Your task to perform on an android device: turn off notifications settings in the gmail app Image 0: 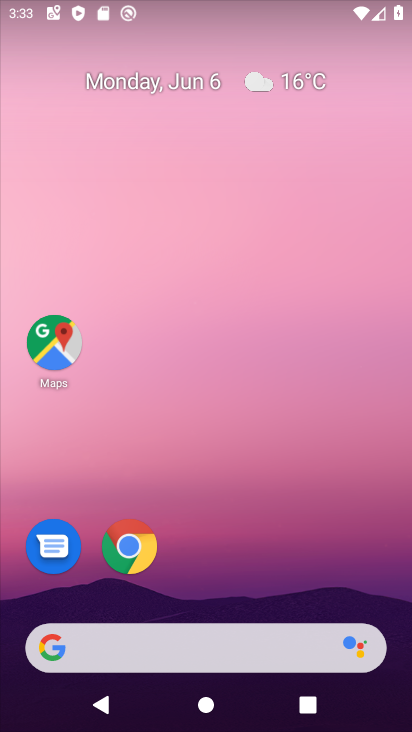
Step 0: drag from (253, 566) to (319, 170)
Your task to perform on an android device: turn off notifications settings in the gmail app Image 1: 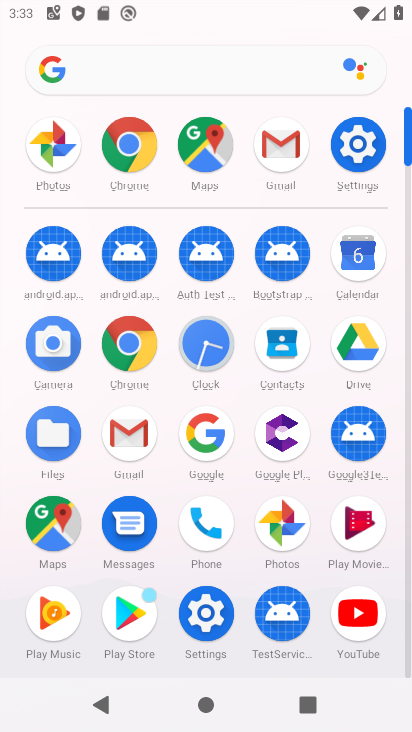
Step 1: click (284, 155)
Your task to perform on an android device: turn off notifications settings in the gmail app Image 2: 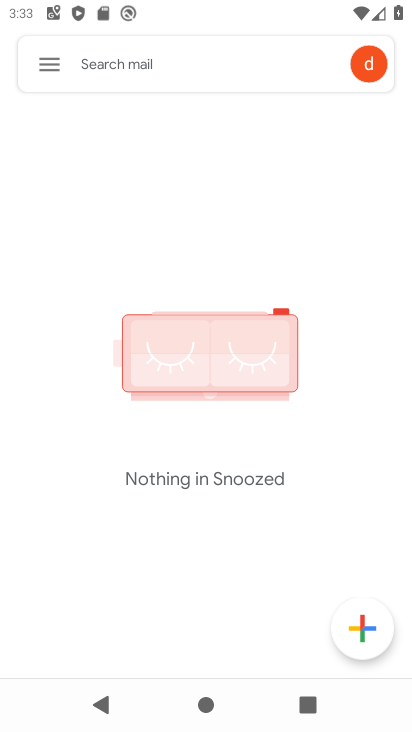
Step 2: click (43, 61)
Your task to perform on an android device: turn off notifications settings in the gmail app Image 3: 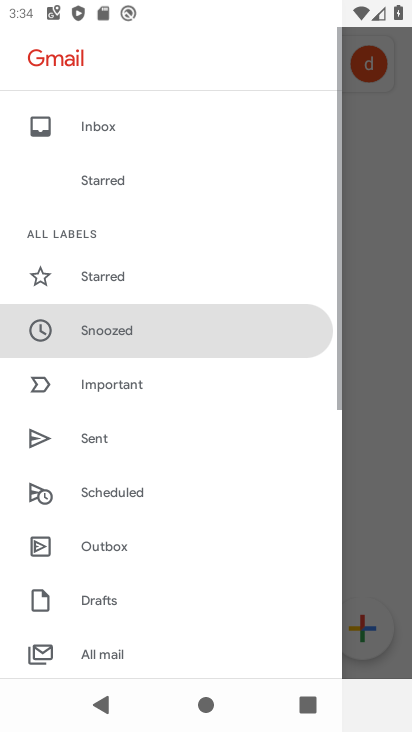
Step 3: drag from (73, 645) to (166, 142)
Your task to perform on an android device: turn off notifications settings in the gmail app Image 4: 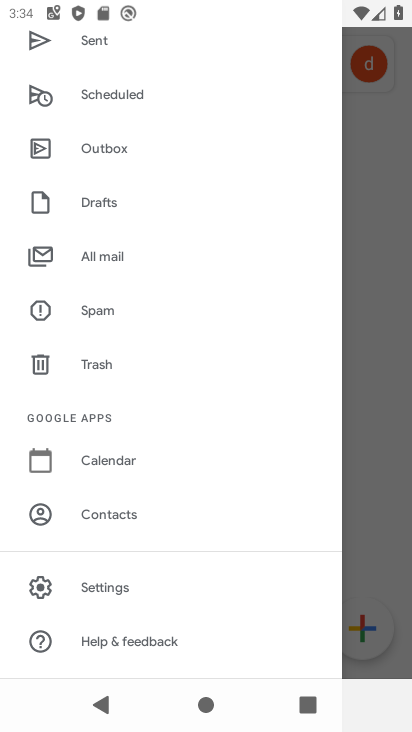
Step 4: click (131, 585)
Your task to perform on an android device: turn off notifications settings in the gmail app Image 5: 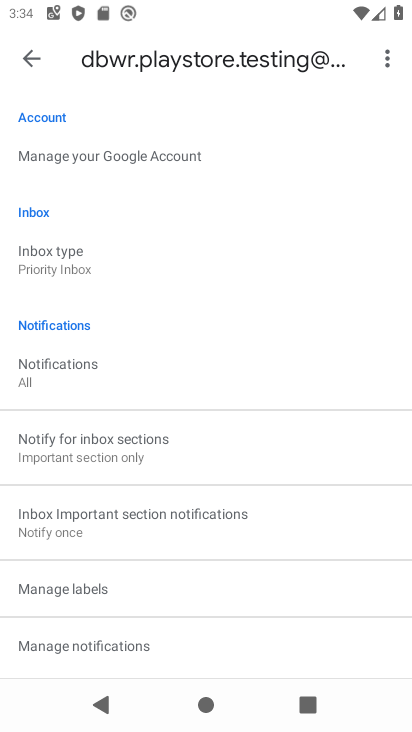
Step 5: click (61, 371)
Your task to perform on an android device: turn off notifications settings in the gmail app Image 6: 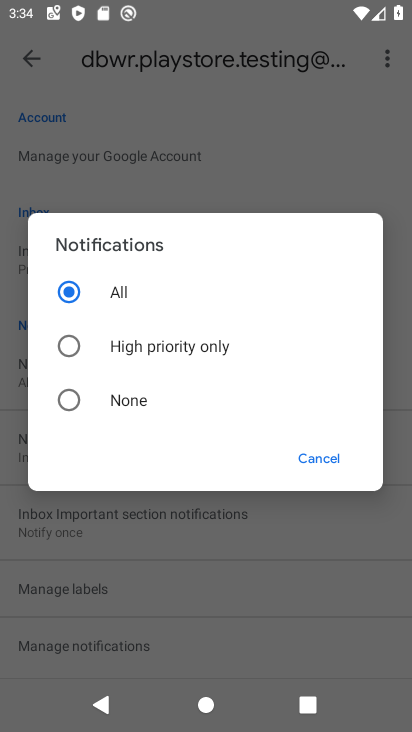
Step 6: click (127, 405)
Your task to perform on an android device: turn off notifications settings in the gmail app Image 7: 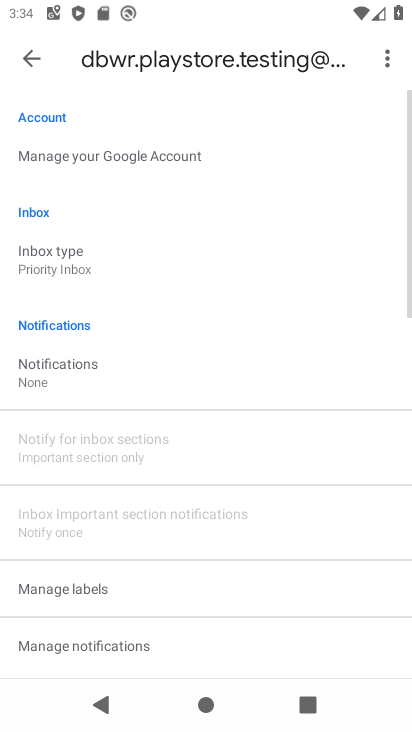
Step 7: task complete